Your task to perform on an android device: toggle sleep mode Image 0: 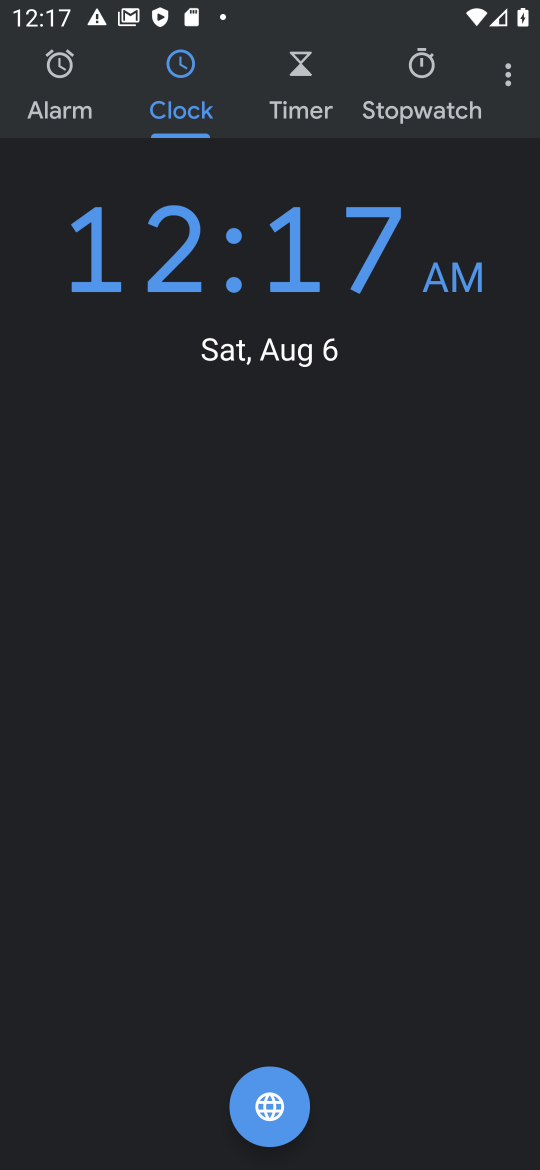
Step 0: press home button
Your task to perform on an android device: toggle sleep mode Image 1: 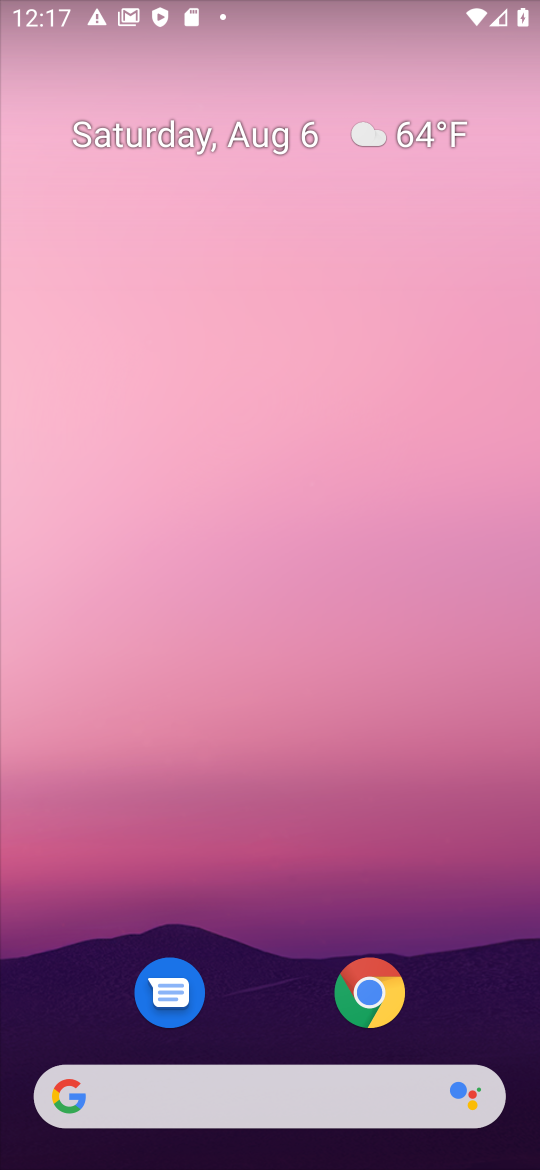
Step 1: drag from (274, 1054) to (397, 212)
Your task to perform on an android device: toggle sleep mode Image 2: 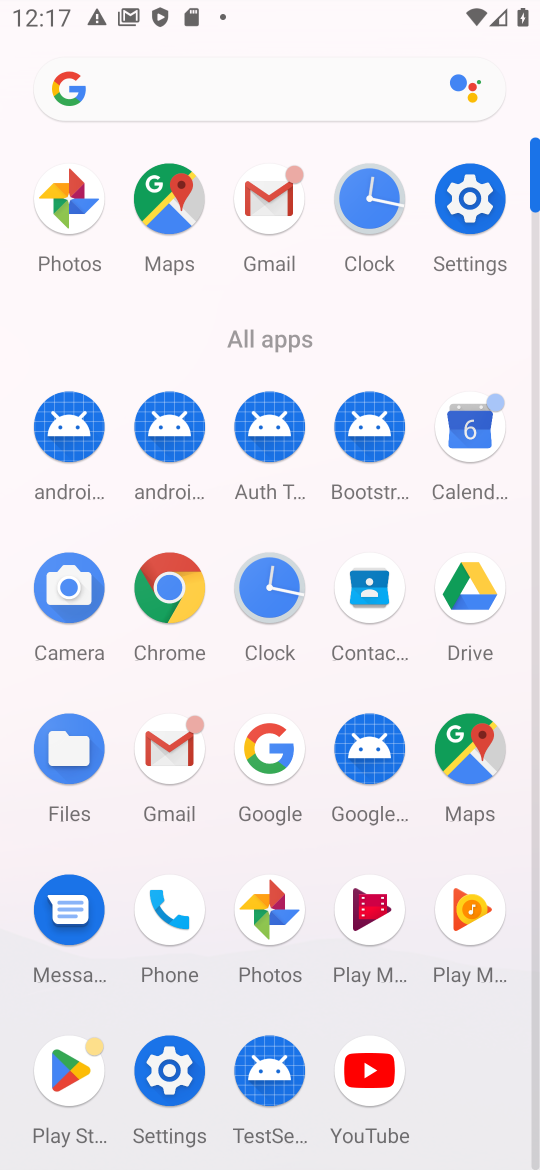
Step 2: click (465, 207)
Your task to perform on an android device: toggle sleep mode Image 3: 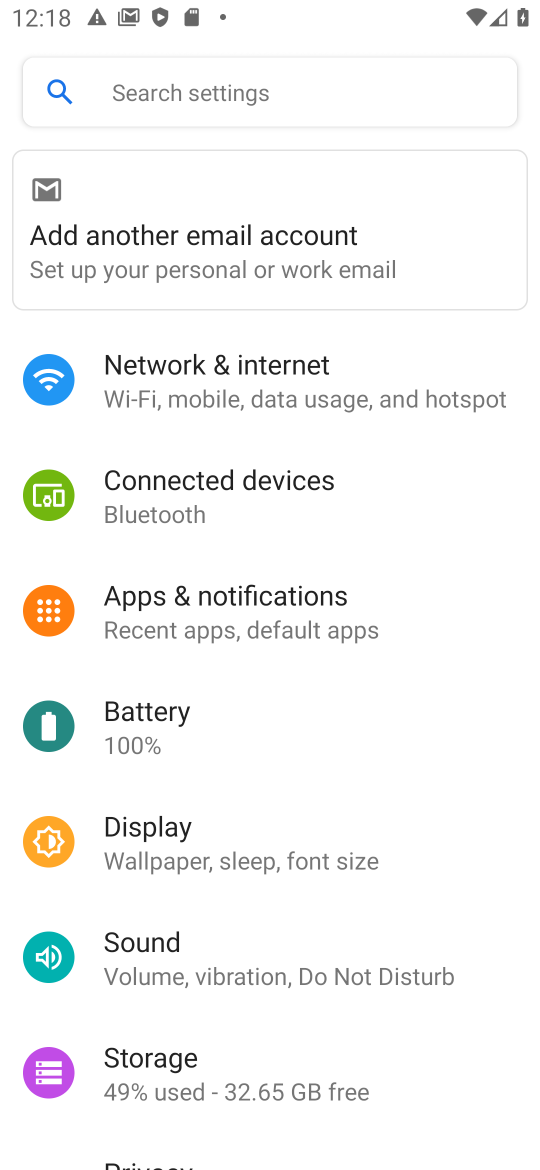
Step 3: click (219, 830)
Your task to perform on an android device: toggle sleep mode Image 4: 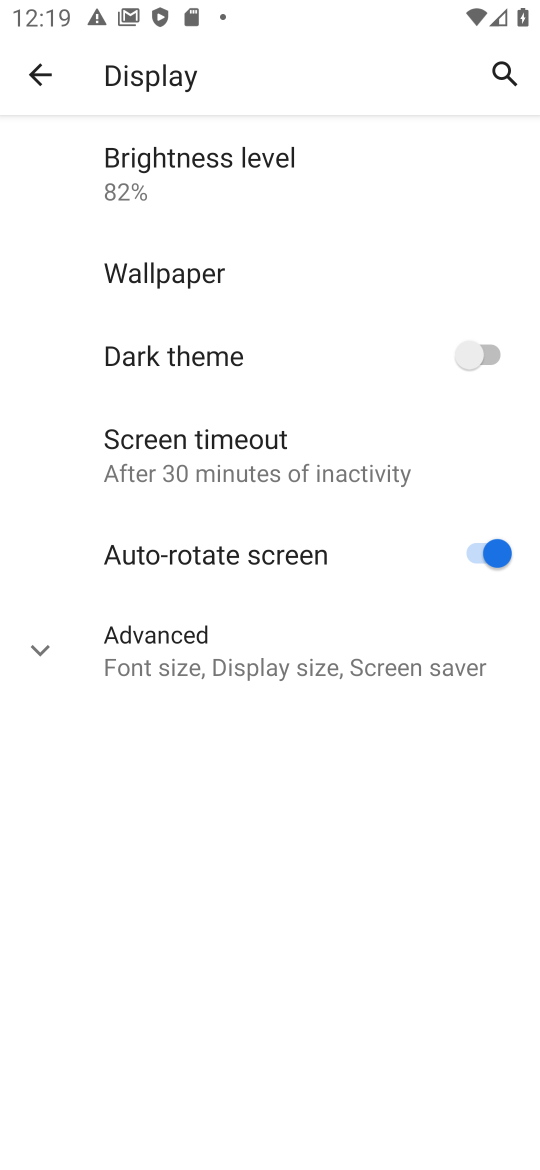
Step 4: task complete